Your task to perform on an android device: check google app version Image 0: 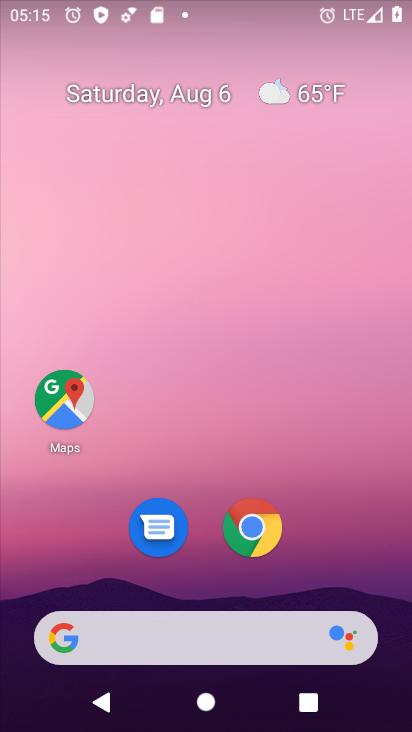
Step 0: drag from (223, 625) to (166, 38)
Your task to perform on an android device: check google app version Image 1: 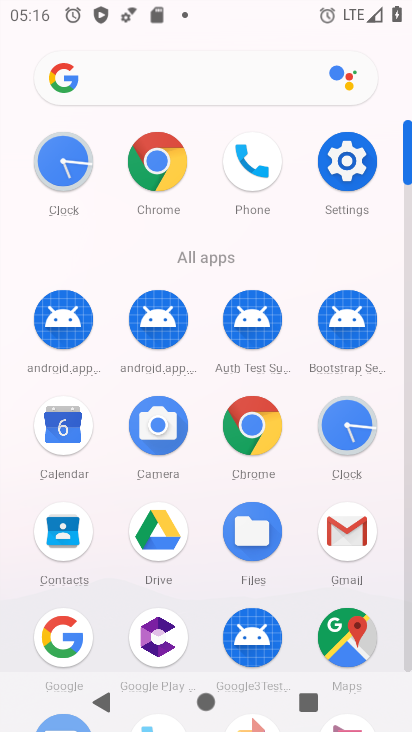
Step 1: click (78, 627)
Your task to perform on an android device: check google app version Image 2: 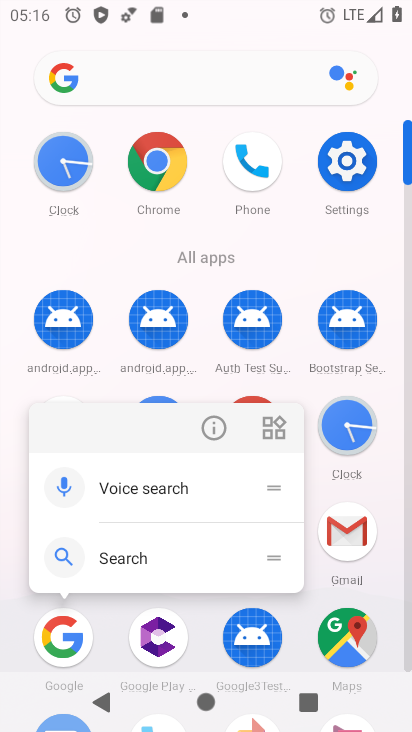
Step 2: click (213, 422)
Your task to perform on an android device: check google app version Image 3: 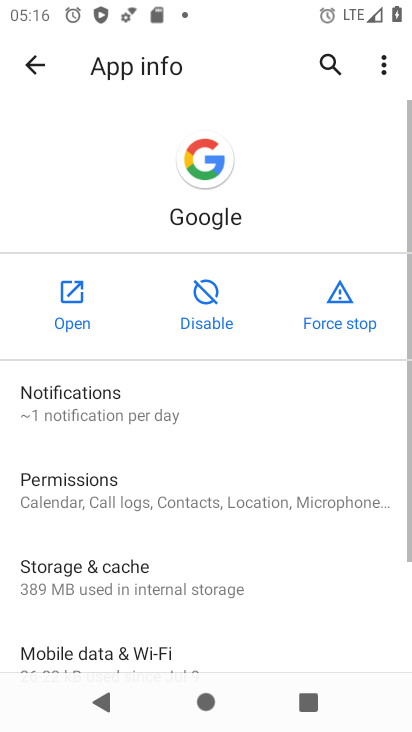
Step 3: drag from (203, 603) to (261, 74)
Your task to perform on an android device: check google app version Image 4: 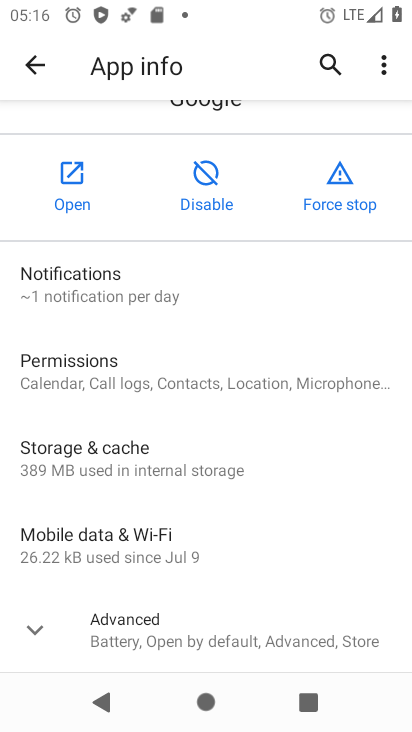
Step 4: click (202, 661)
Your task to perform on an android device: check google app version Image 5: 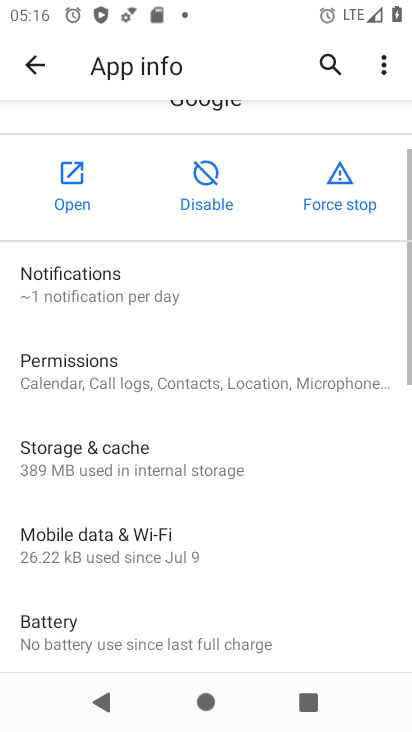
Step 5: task complete